Your task to perform on an android device: Open maps Image 0: 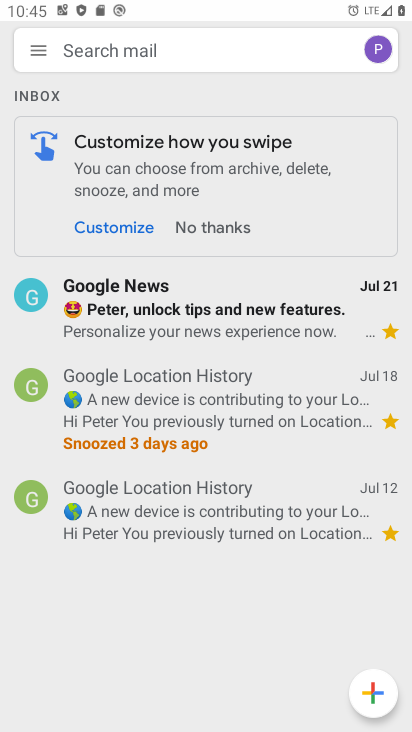
Step 0: press home button
Your task to perform on an android device: Open maps Image 1: 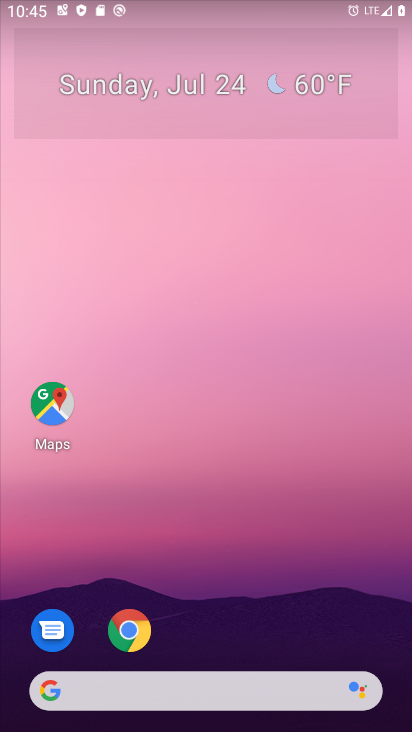
Step 1: click (77, 395)
Your task to perform on an android device: Open maps Image 2: 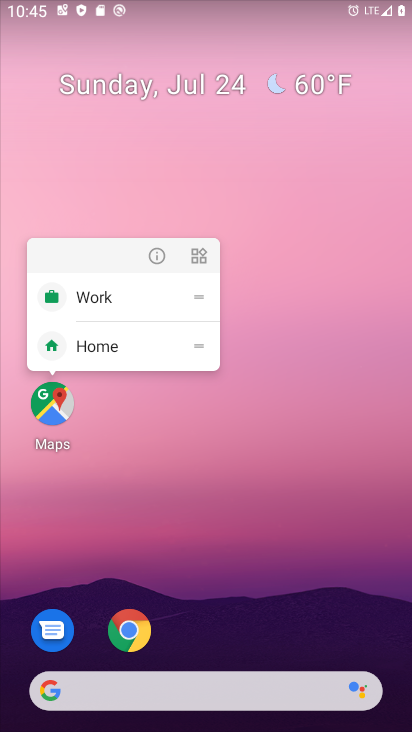
Step 2: click (61, 399)
Your task to perform on an android device: Open maps Image 3: 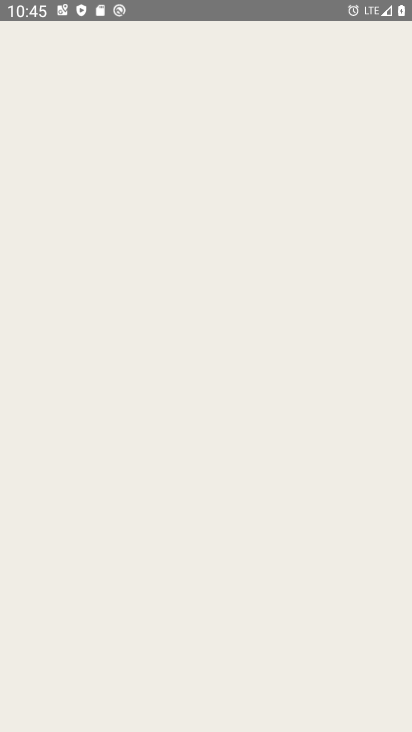
Step 3: click (54, 432)
Your task to perform on an android device: Open maps Image 4: 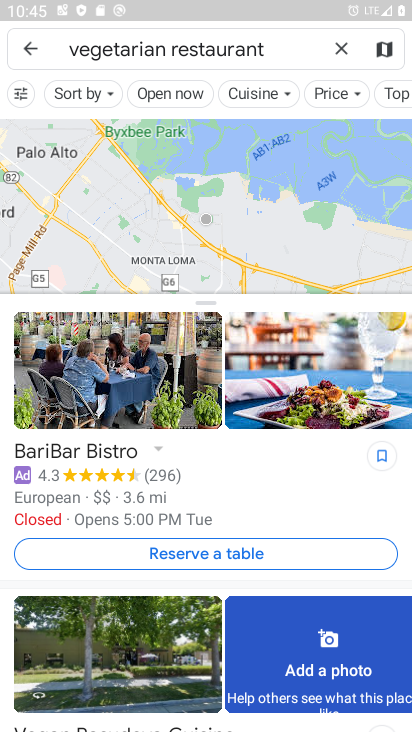
Step 4: task complete